Your task to perform on an android device: Find coffee shops on Maps Image 0: 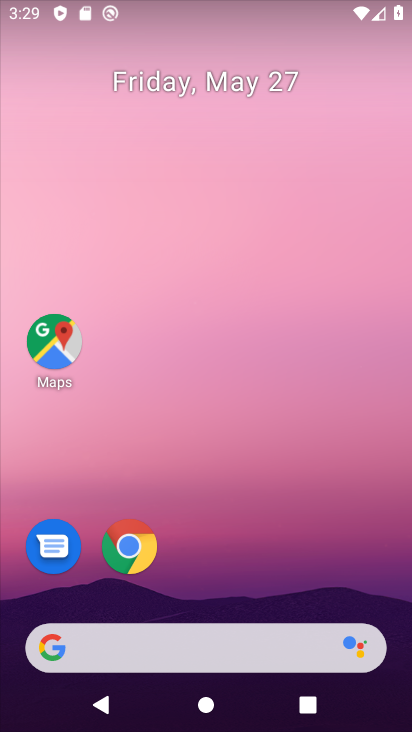
Step 0: click (43, 343)
Your task to perform on an android device: Find coffee shops on Maps Image 1: 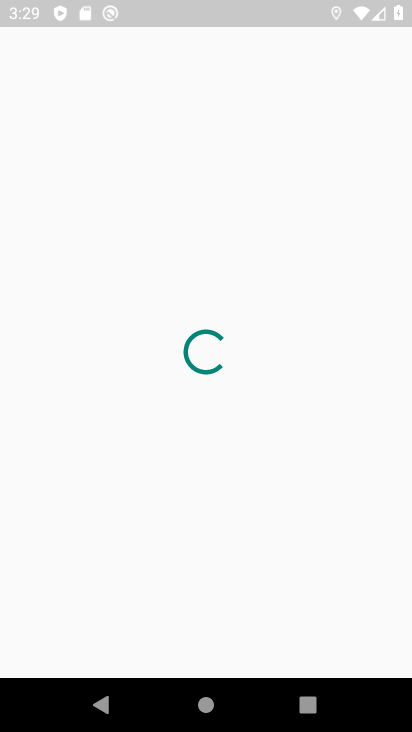
Step 1: click (94, 65)
Your task to perform on an android device: Find coffee shops on Maps Image 2: 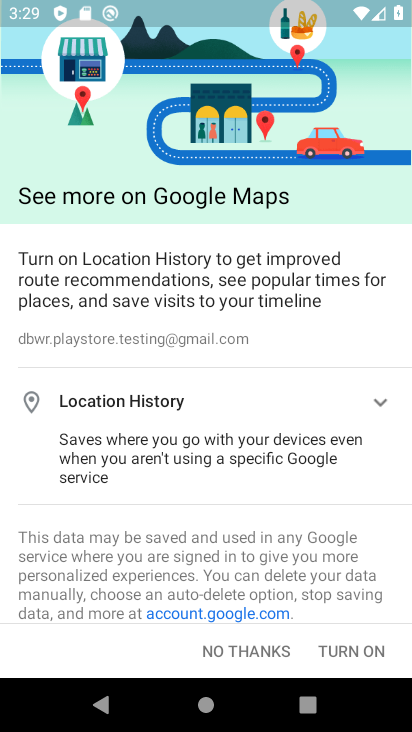
Step 2: click (359, 643)
Your task to perform on an android device: Find coffee shops on Maps Image 3: 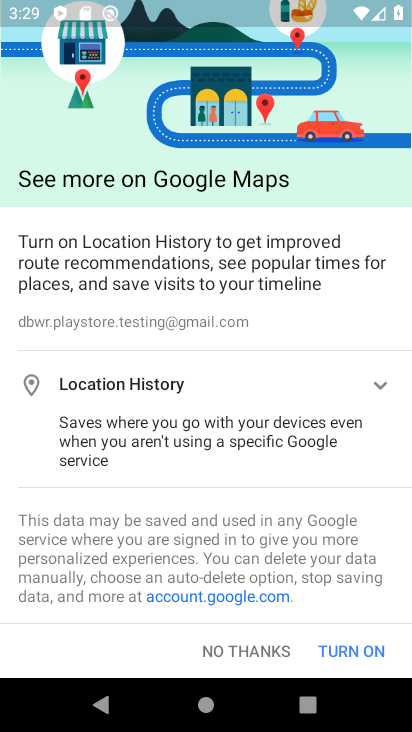
Step 3: press back button
Your task to perform on an android device: Find coffee shops on Maps Image 4: 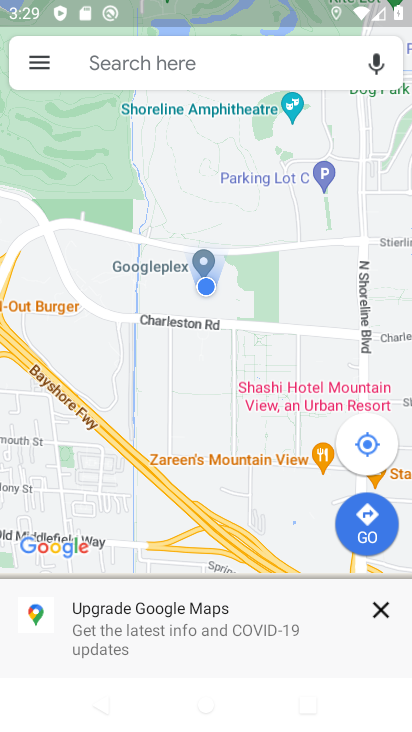
Step 4: click (87, 63)
Your task to perform on an android device: Find coffee shops on Maps Image 5: 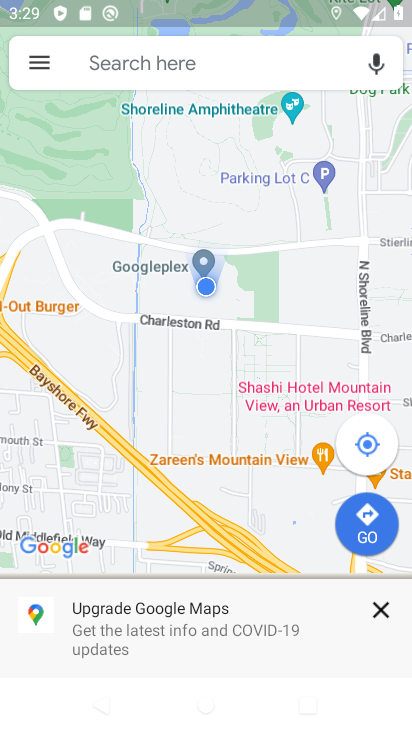
Step 5: press back button
Your task to perform on an android device: Find coffee shops on Maps Image 6: 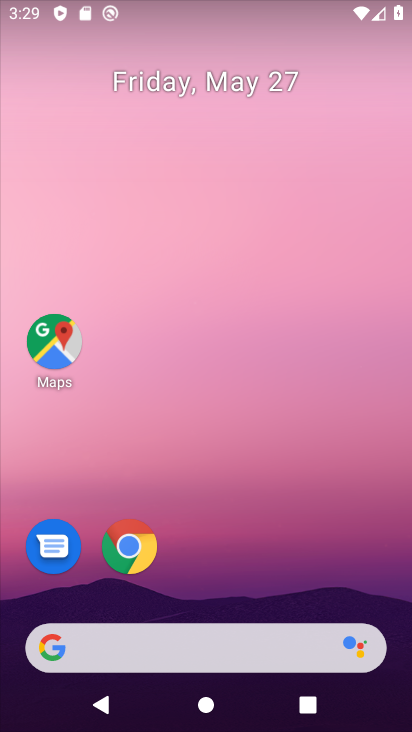
Step 6: click (43, 347)
Your task to perform on an android device: Find coffee shops on Maps Image 7: 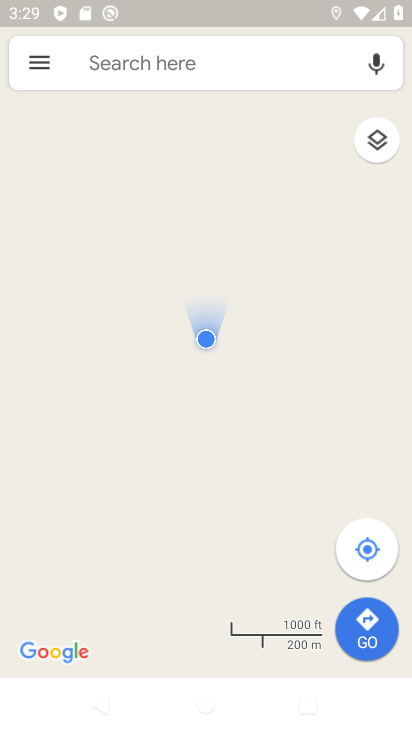
Step 7: click (88, 66)
Your task to perform on an android device: Find coffee shops on Maps Image 8: 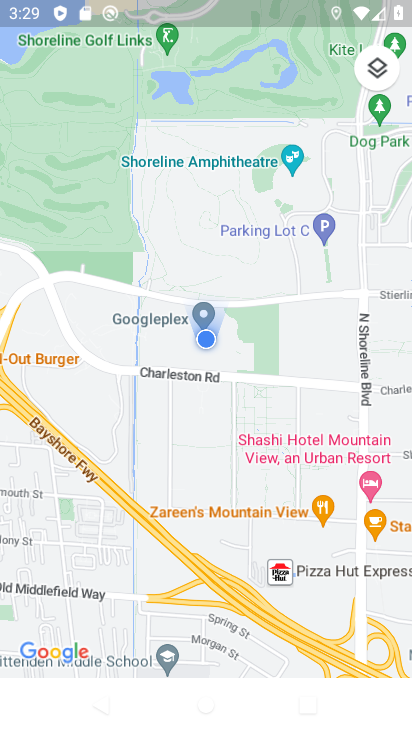
Step 8: click (83, 97)
Your task to perform on an android device: Find coffee shops on Maps Image 9: 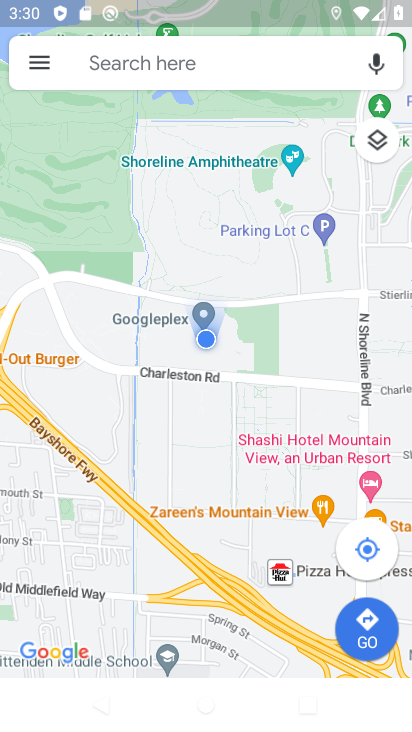
Step 9: click (83, 63)
Your task to perform on an android device: Find coffee shops on Maps Image 10: 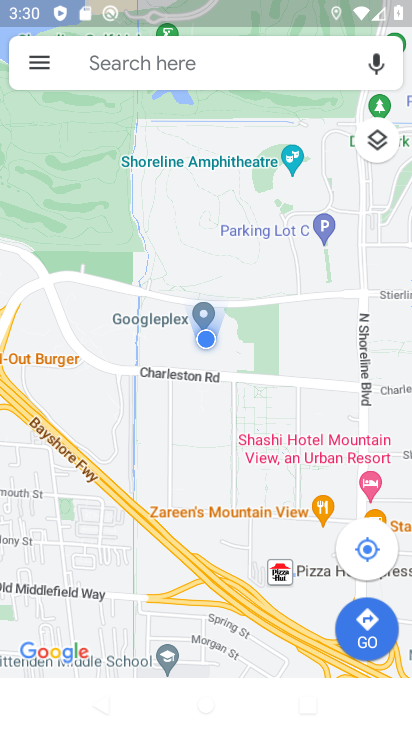
Step 10: click (98, 60)
Your task to perform on an android device: Find coffee shops on Maps Image 11: 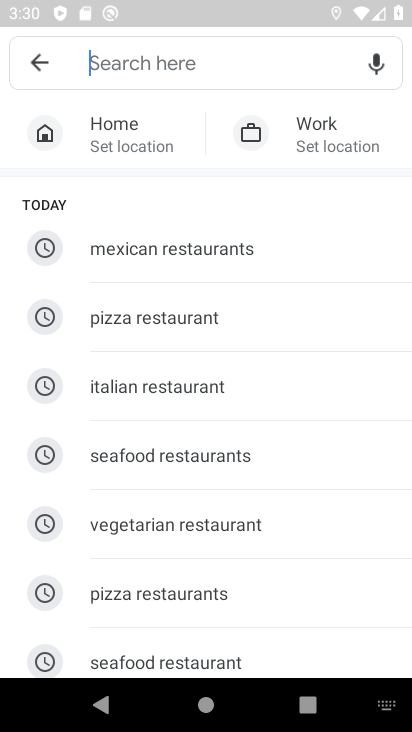
Step 11: type "coffee shops "
Your task to perform on an android device: Find coffee shops on Maps Image 12: 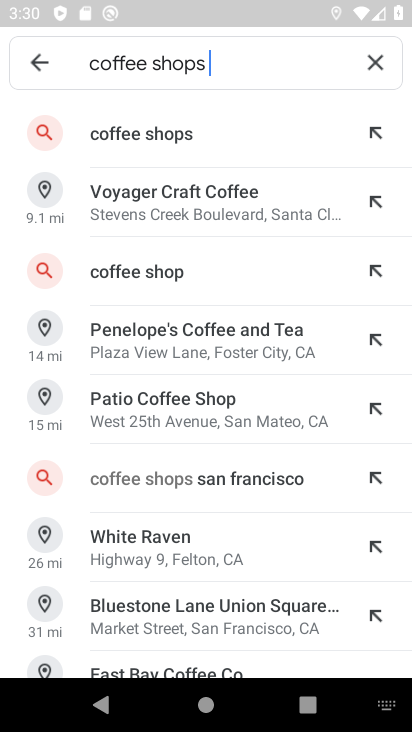
Step 12: click (118, 133)
Your task to perform on an android device: Find coffee shops on Maps Image 13: 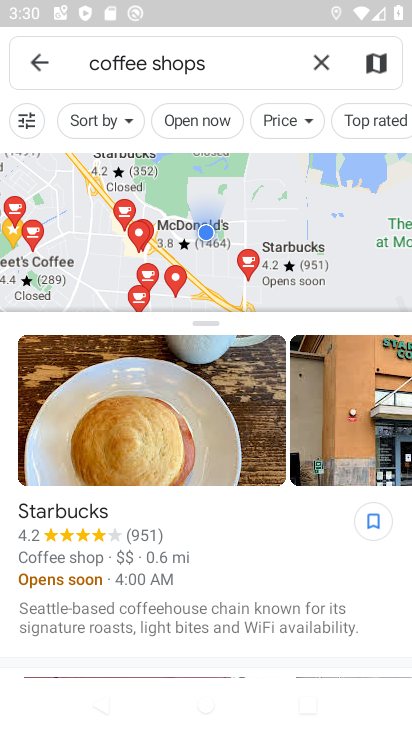
Step 13: task complete